Your task to perform on an android device: Open calendar and show me the second week of next month Image 0: 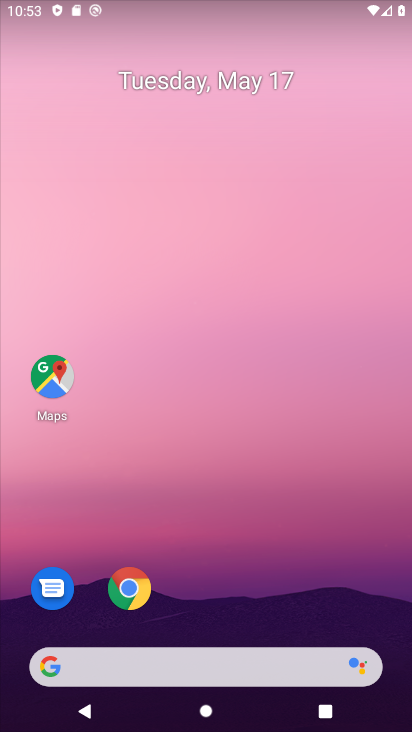
Step 0: drag from (284, 625) to (238, 155)
Your task to perform on an android device: Open calendar and show me the second week of next month Image 1: 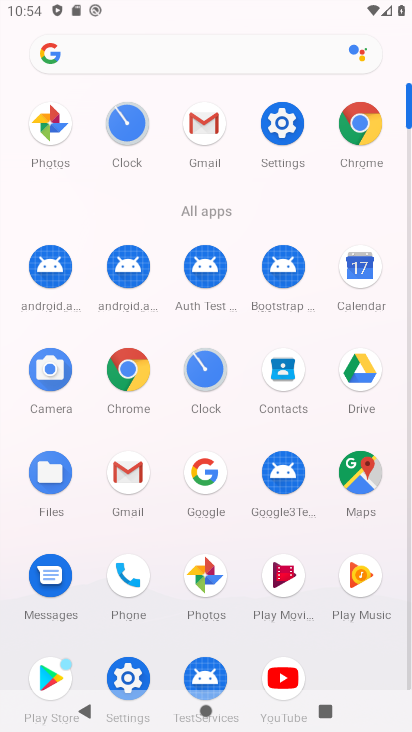
Step 1: click (352, 274)
Your task to perform on an android device: Open calendar and show me the second week of next month Image 2: 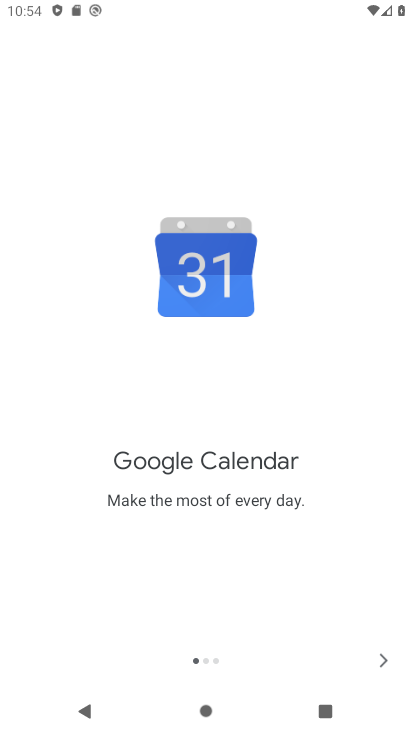
Step 2: click (379, 661)
Your task to perform on an android device: Open calendar and show me the second week of next month Image 3: 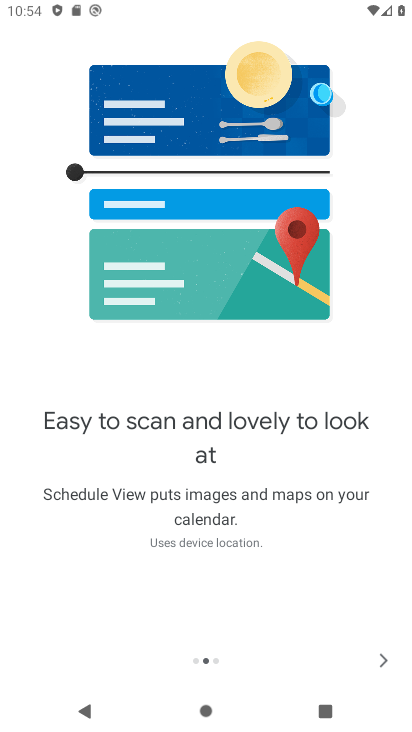
Step 3: click (379, 661)
Your task to perform on an android device: Open calendar and show me the second week of next month Image 4: 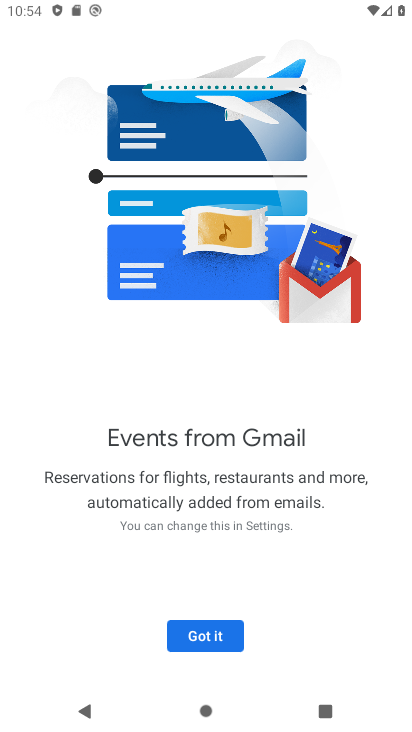
Step 4: click (201, 643)
Your task to perform on an android device: Open calendar and show me the second week of next month Image 5: 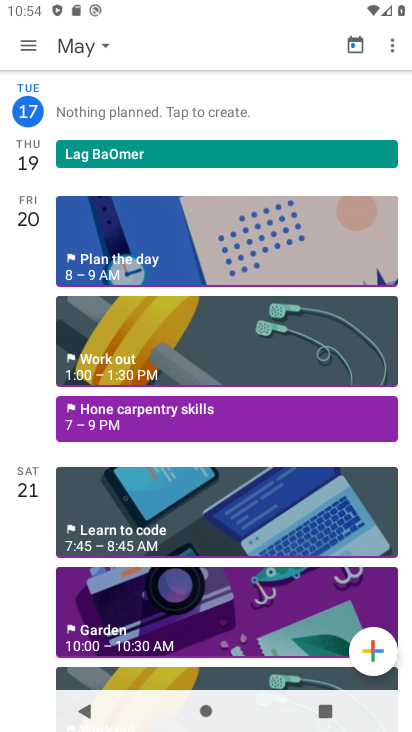
Step 5: click (69, 49)
Your task to perform on an android device: Open calendar and show me the second week of next month Image 6: 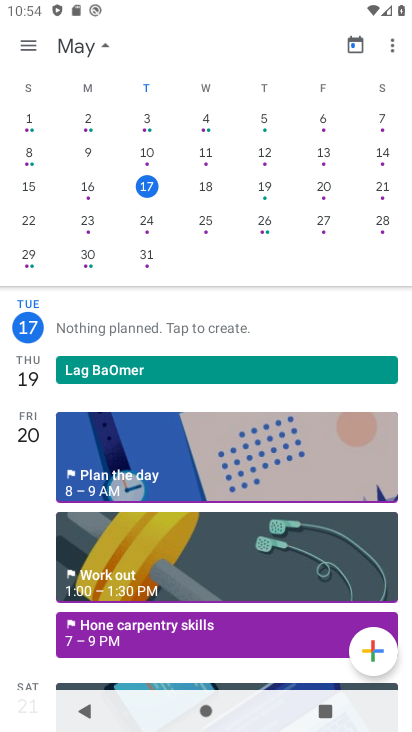
Step 6: drag from (368, 235) to (3, 212)
Your task to perform on an android device: Open calendar and show me the second week of next month Image 7: 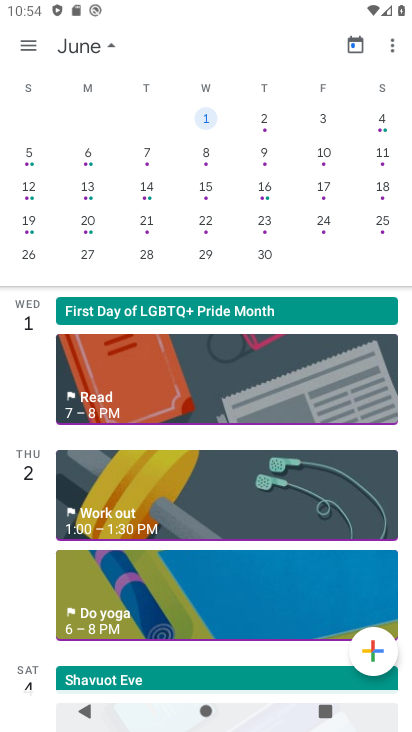
Step 7: click (28, 153)
Your task to perform on an android device: Open calendar and show me the second week of next month Image 8: 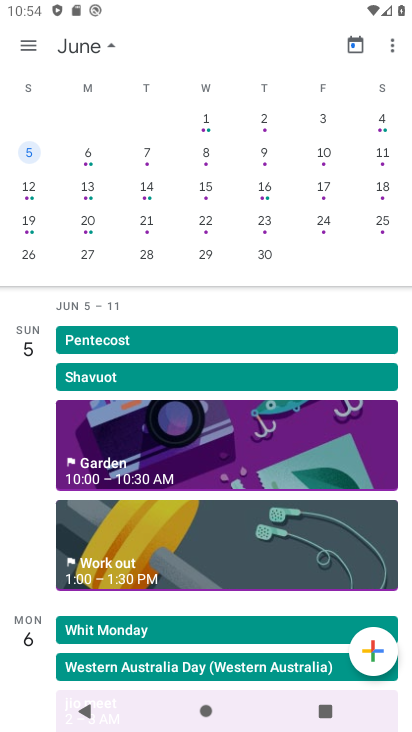
Step 8: click (91, 158)
Your task to perform on an android device: Open calendar and show me the second week of next month Image 9: 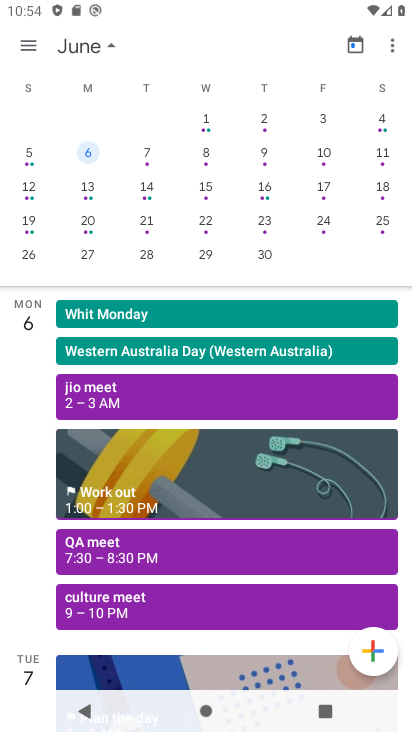
Step 9: click (137, 158)
Your task to perform on an android device: Open calendar and show me the second week of next month Image 10: 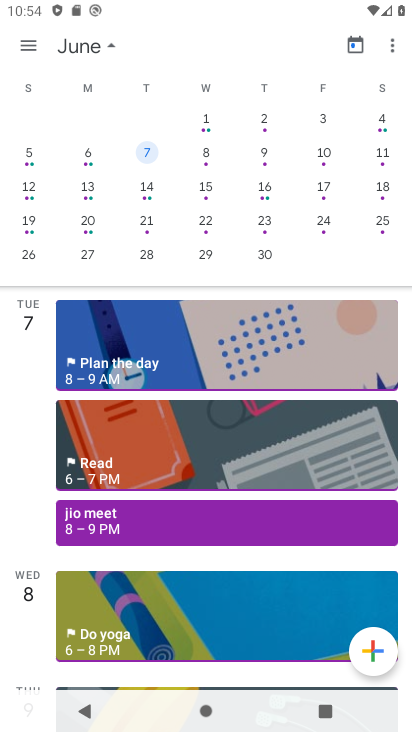
Step 10: click (209, 163)
Your task to perform on an android device: Open calendar and show me the second week of next month Image 11: 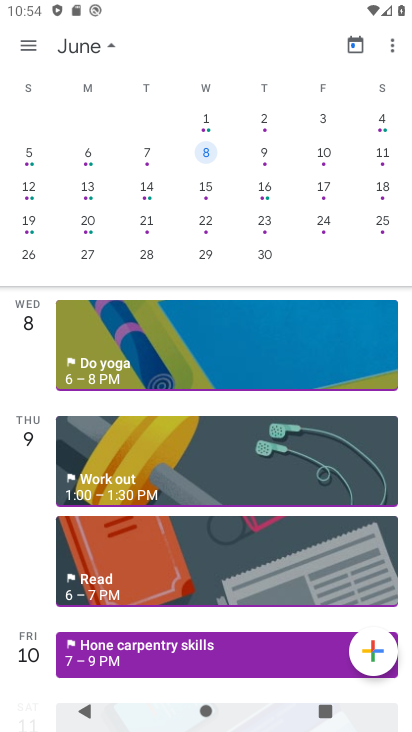
Step 11: click (278, 159)
Your task to perform on an android device: Open calendar and show me the second week of next month Image 12: 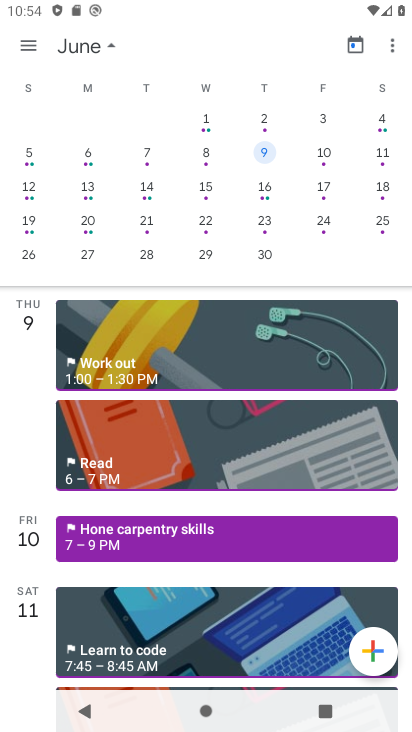
Step 12: click (321, 165)
Your task to perform on an android device: Open calendar and show me the second week of next month Image 13: 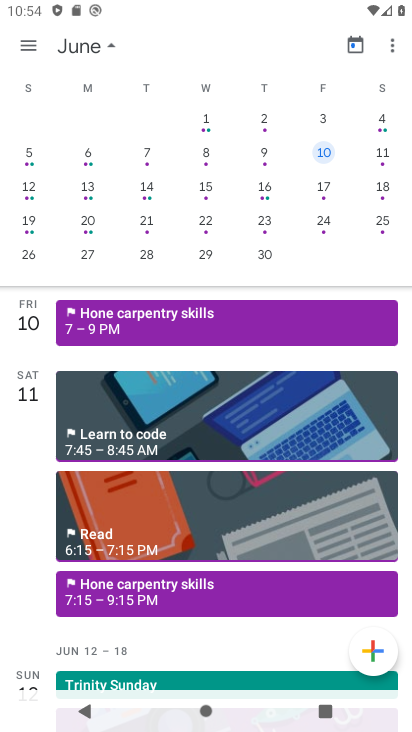
Step 13: click (383, 158)
Your task to perform on an android device: Open calendar and show me the second week of next month Image 14: 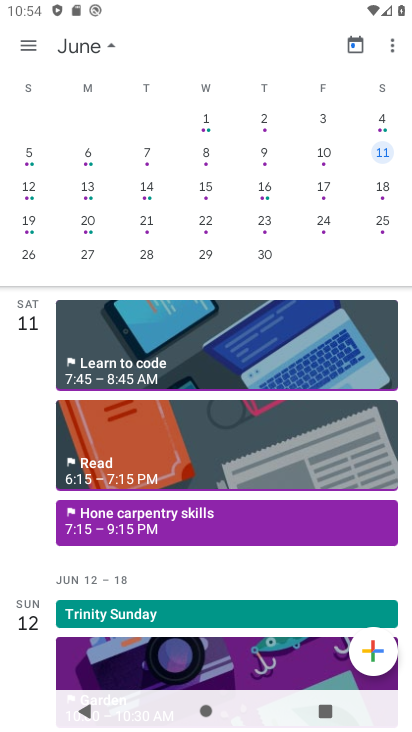
Step 14: task complete